Your task to perform on an android device: Play the latest video from the BBC Image 0: 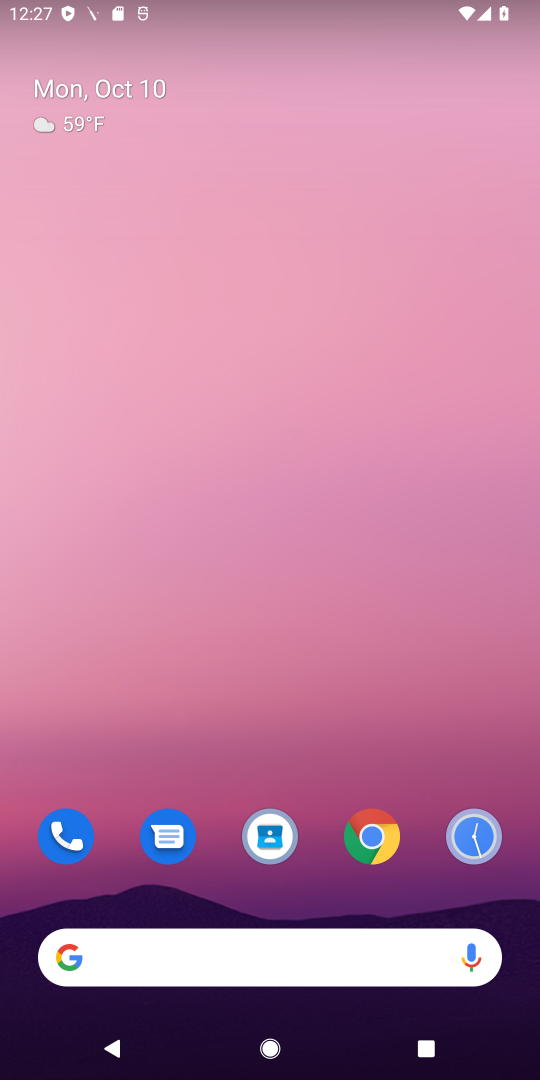
Step 0: drag from (356, 746) to (334, 209)
Your task to perform on an android device: Play the latest video from the BBC Image 1: 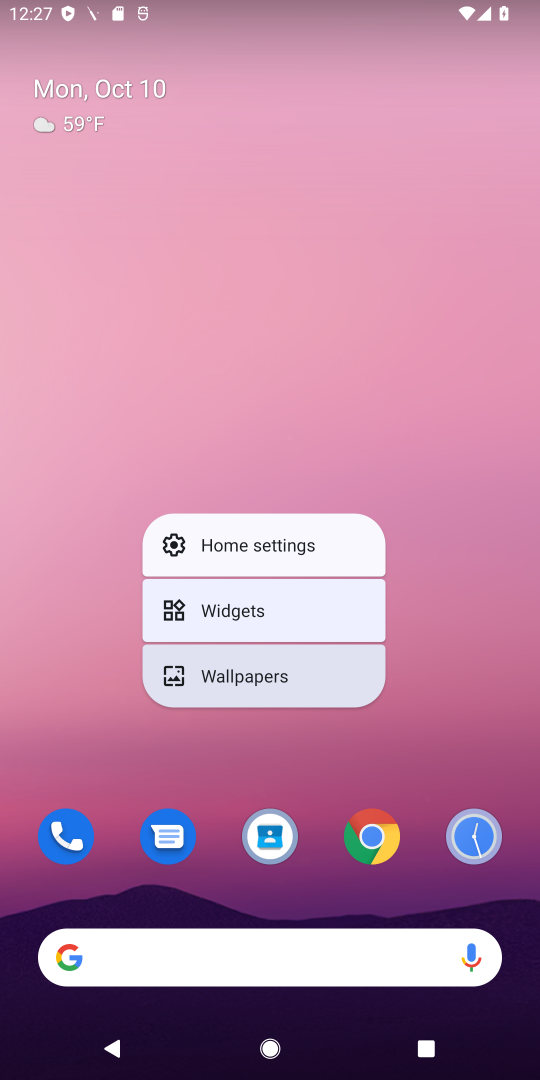
Step 1: click (438, 404)
Your task to perform on an android device: Play the latest video from the BBC Image 2: 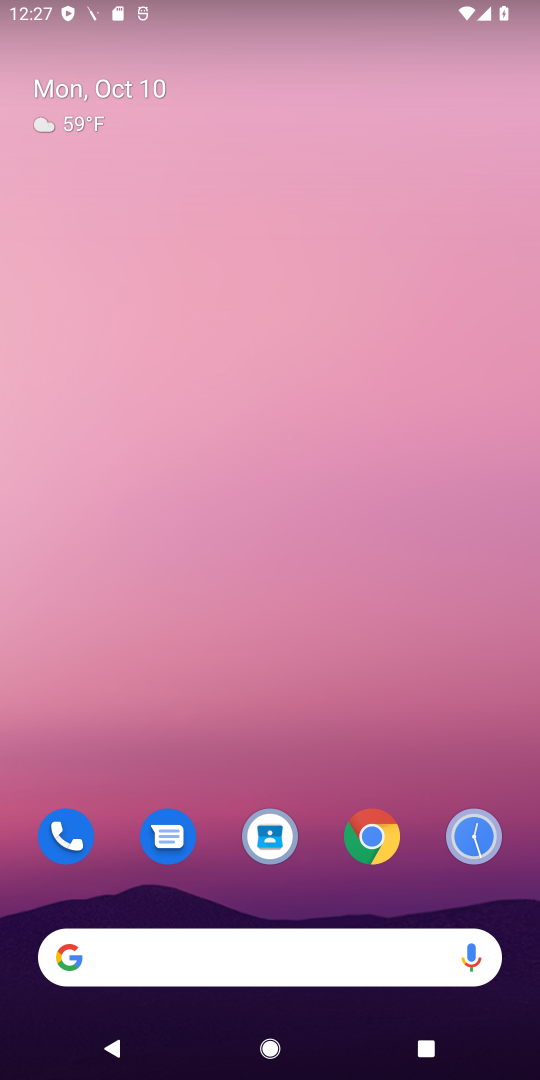
Step 2: drag from (414, 682) to (443, 148)
Your task to perform on an android device: Play the latest video from the BBC Image 3: 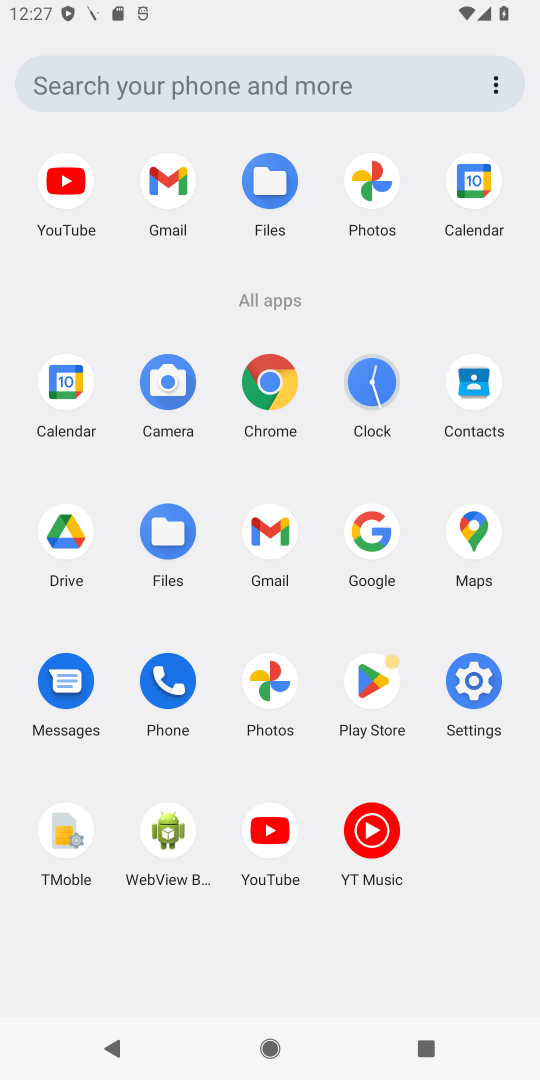
Step 3: click (272, 831)
Your task to perform on an android device: Play the latest video from the BBC Image 4: 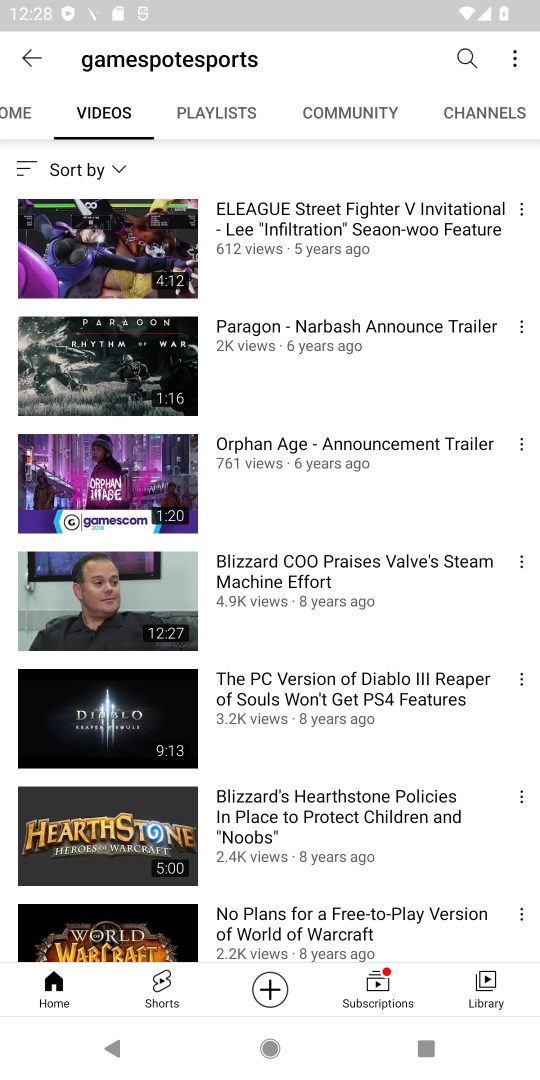
Step 4: click (460, 57)
Your task to perform on an android device: Play the latest video from the BBC Image 5: 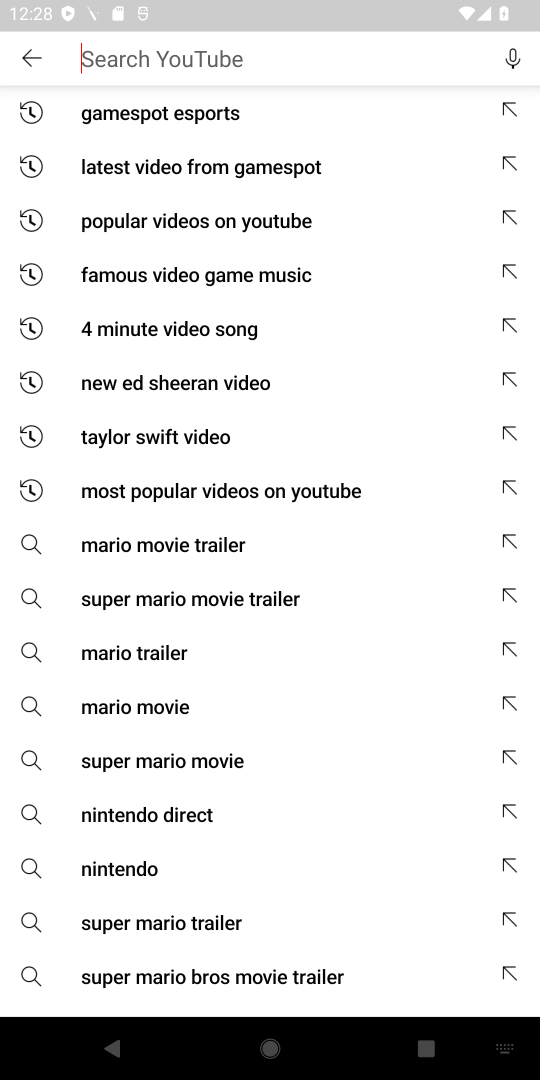
Step 5: type "bbc"
Your task to perform on an android device: Play the latest video from the BBC Image 6: 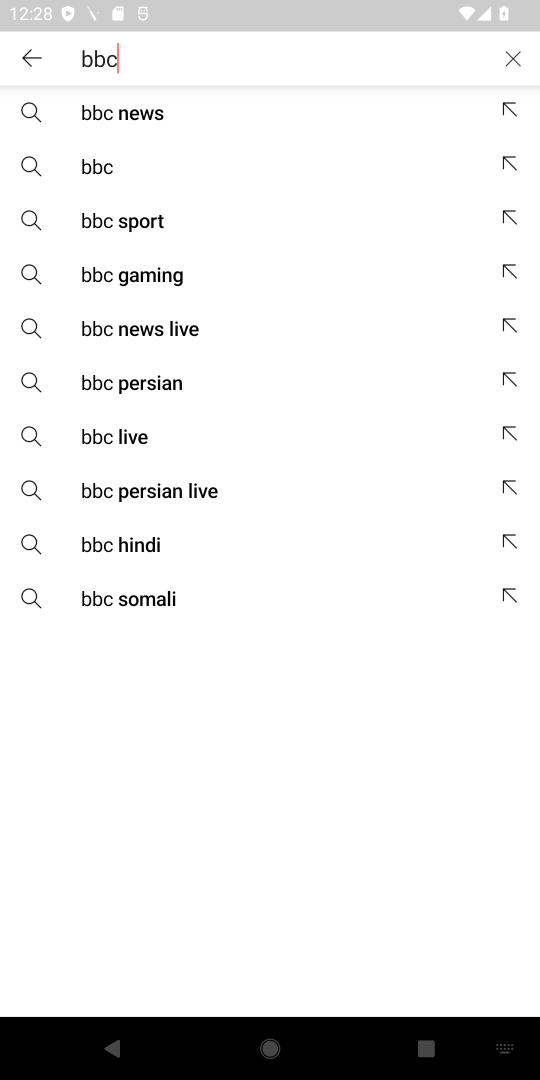
Step 6: click (92, 167)
Your task to perform on an android device: Play the latest video from the BBC Image 7: 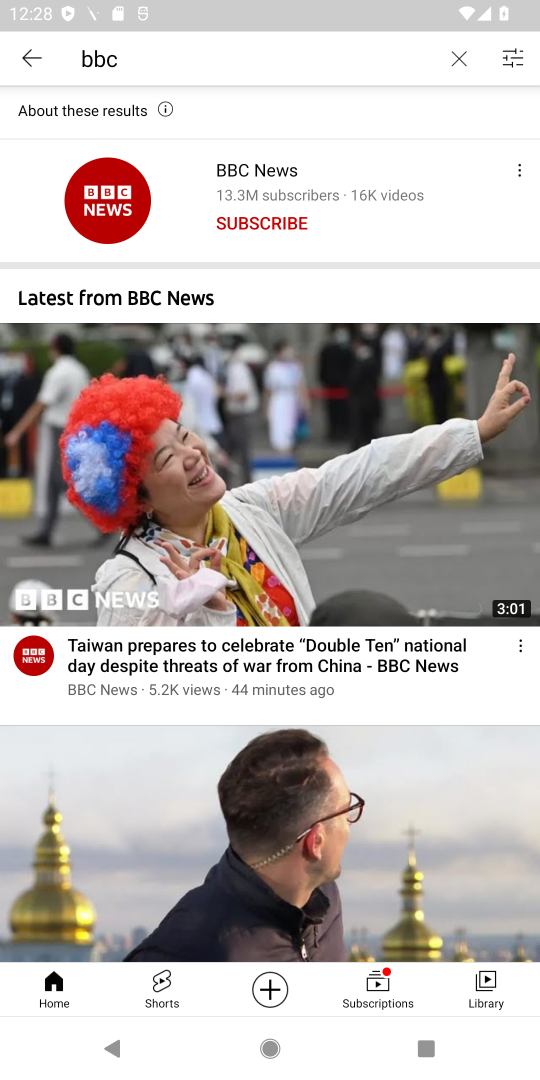
Step 7: click (362, 157)
Your task to perform on an android device: Play the latest video from the BBC Image 8: 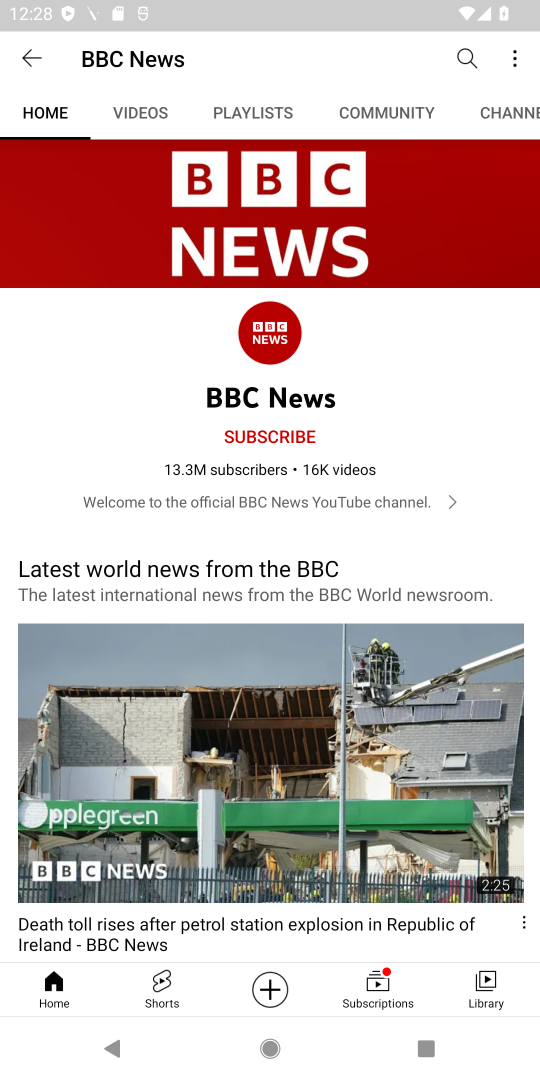
Step 8: click (147, 113)
Your task to perform on an android device: Play the latest video from the BBC Image 9: 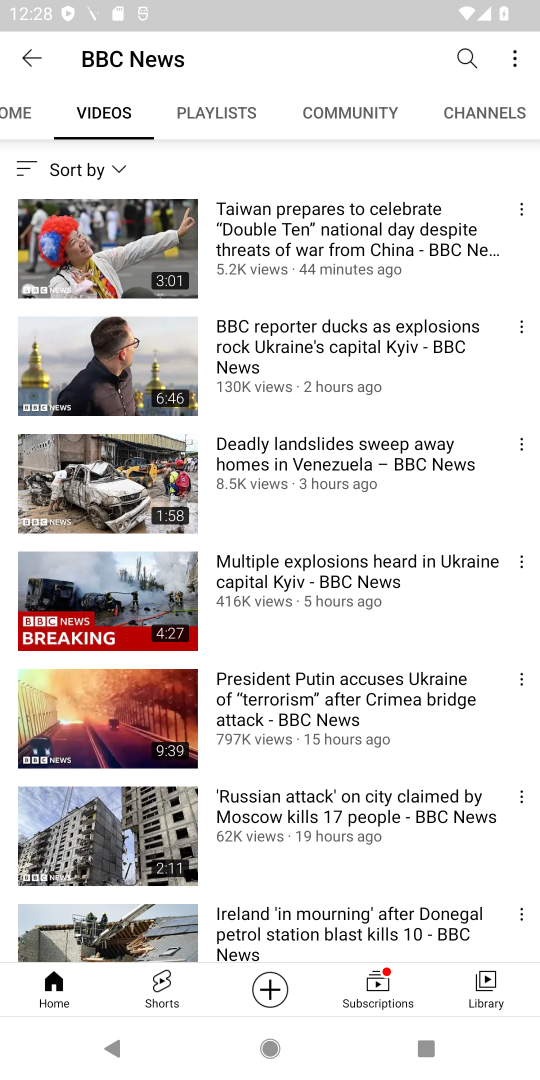
Step 9: click (287, 240)
Your task to perform on an android device: Play the latest video from the BBC Image 10: 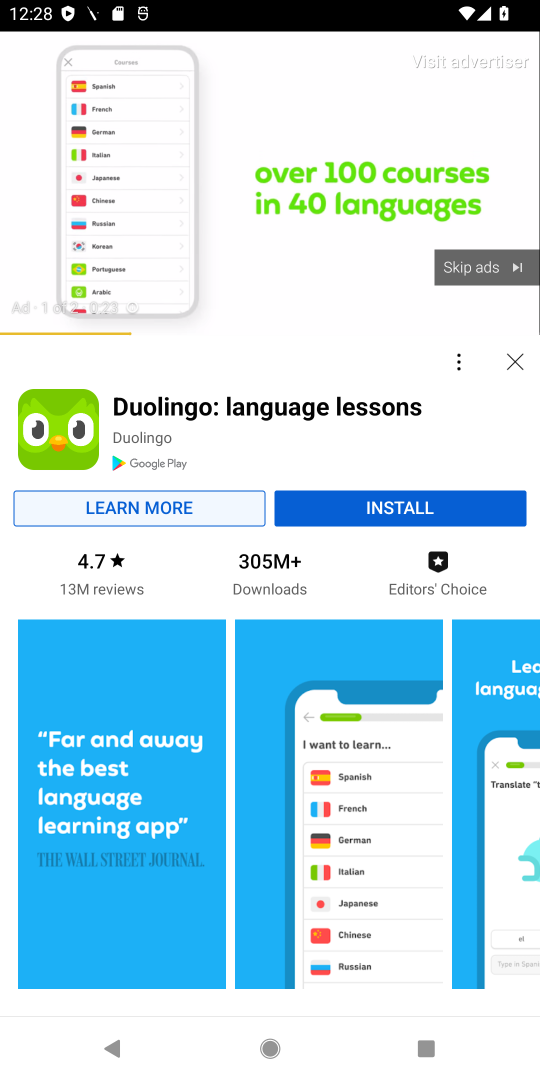
Step 10: click (508, 255)
Your task to perform on an android device: Play the latest video from the BBC Image 11: 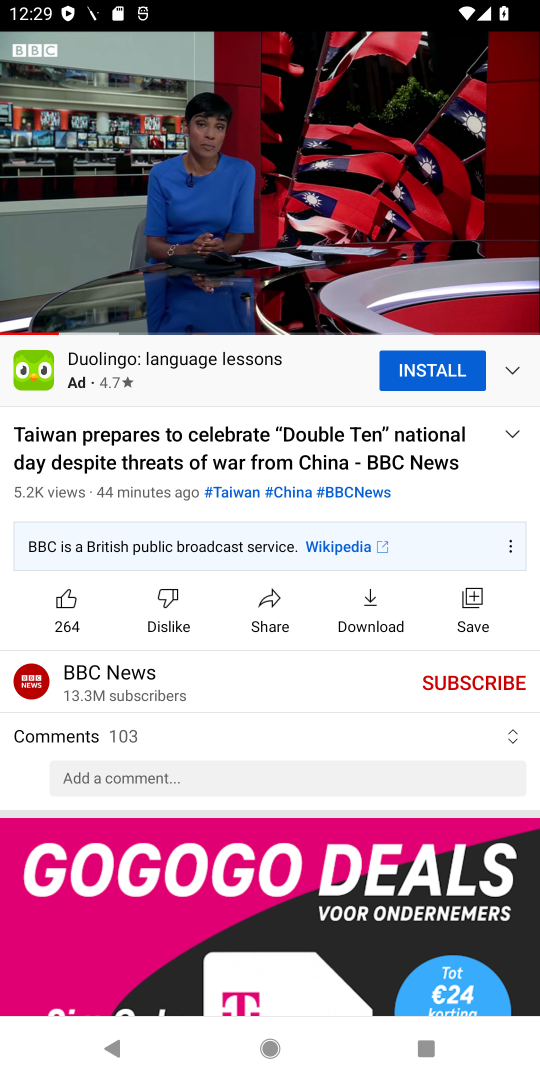
Step 11: task complete